Your task to perform on an android device: turn on improve location accuracy Image 0: 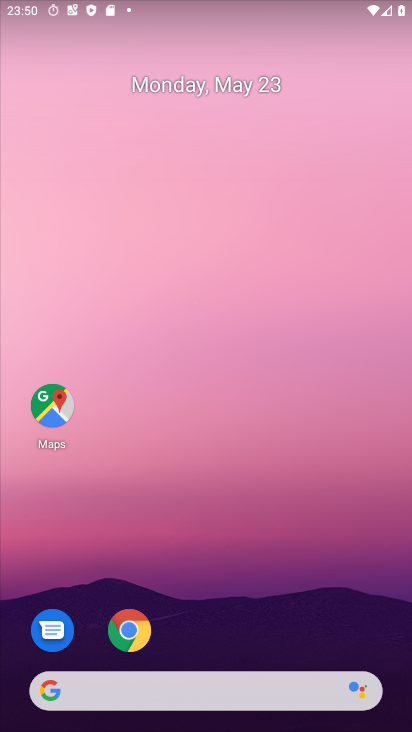
Step 0: drag from (256, 650) to (282, 8)
Your task to perform on an android device: turn on improve location accuracy Image 1: 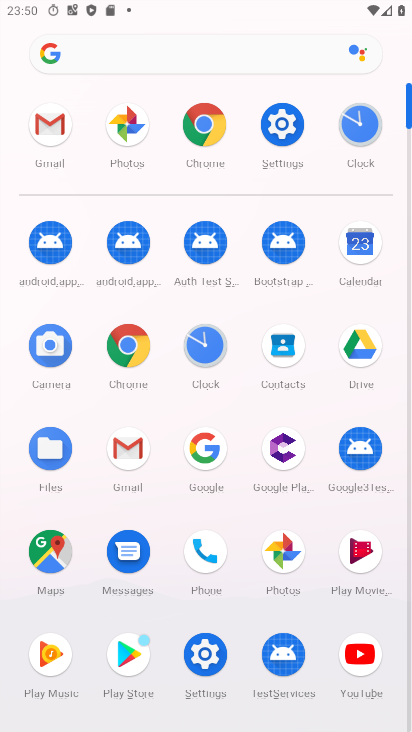
Step 1: click (273, 122)
Your task to perform on an android device: turn on improve location accuracy Image 2: 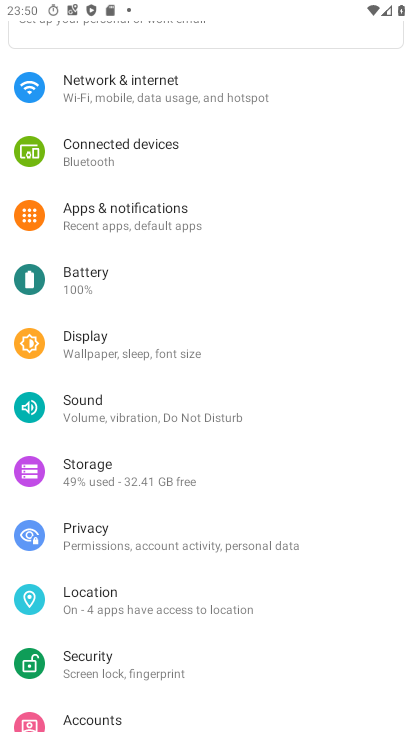
Step 2: click (96, 607)
Your task to perform on an android device: turn on improve location accuracy Image 3: 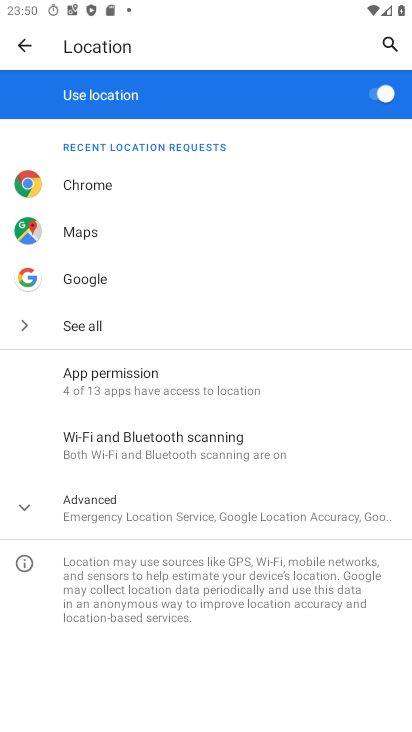
Step 3: click (25, 511)
Your task to perform on an android device: turn on improve location accuracy Image 4: 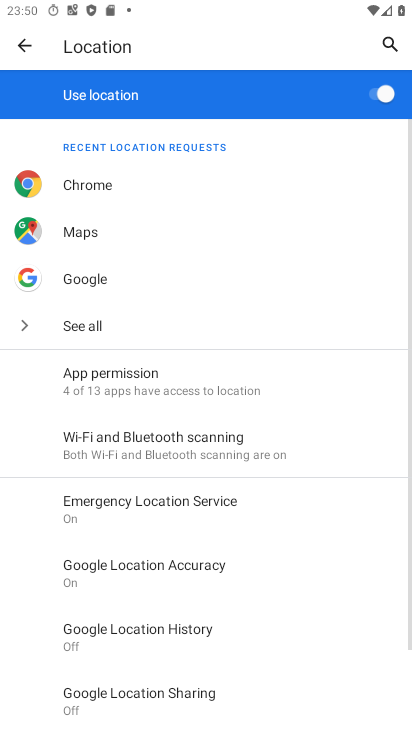
Step 4: click (106, 568)
Your task to perform on an android device: turn on improve location accuracy Image 5: 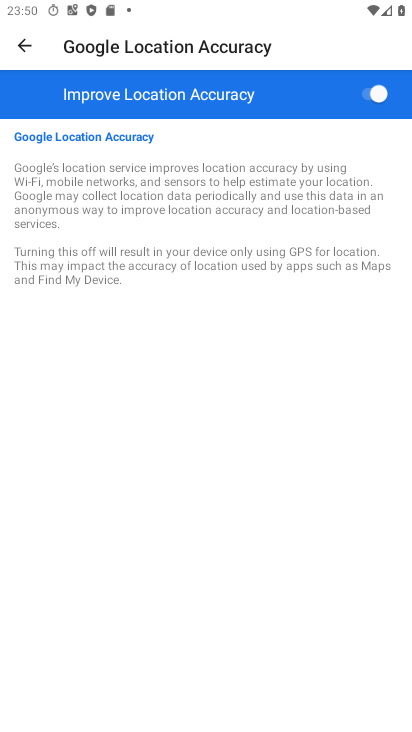
Step 5: task complete